Your task to perform on an android device: What's the time in San Francisco? Image 0: 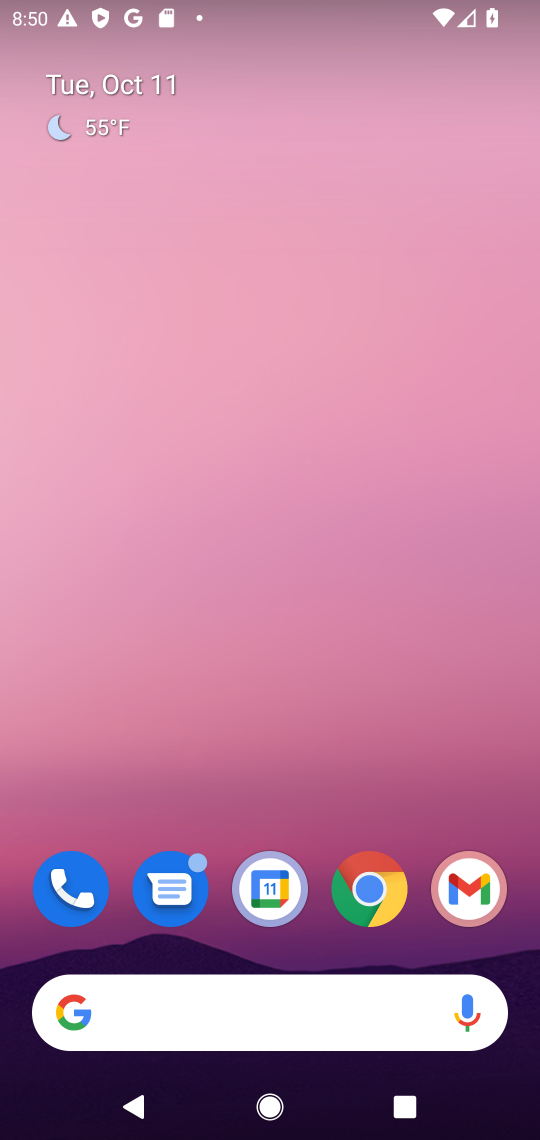
Step 0: click (274, 1000)
Your task to perform on an android device: What's the time in San Francisco? Image 1: 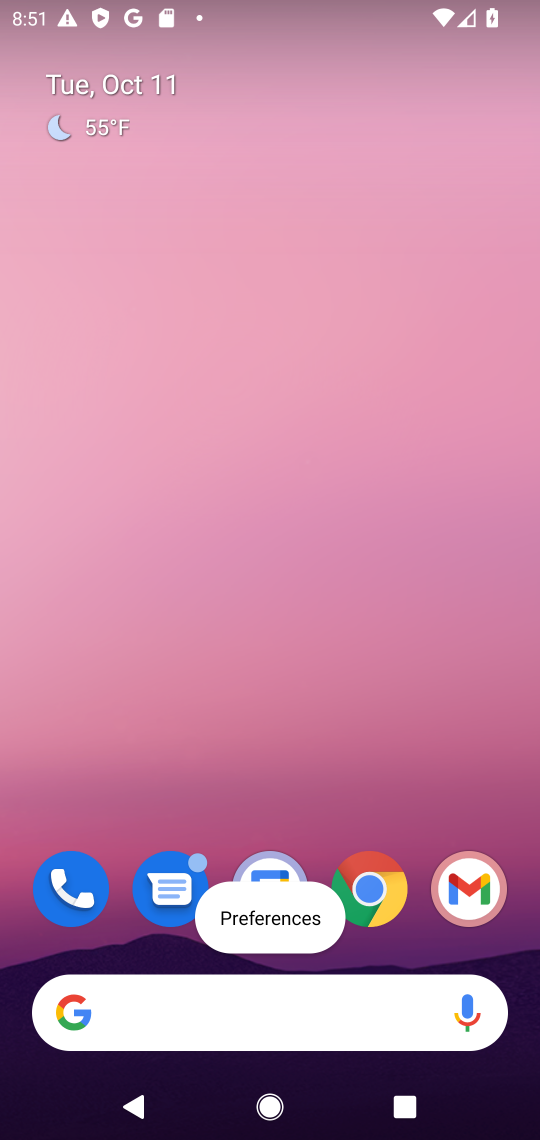
Step 1: click (231, 986)
Your task to perform on an android device: What's the time in San Francisco? Image 2: 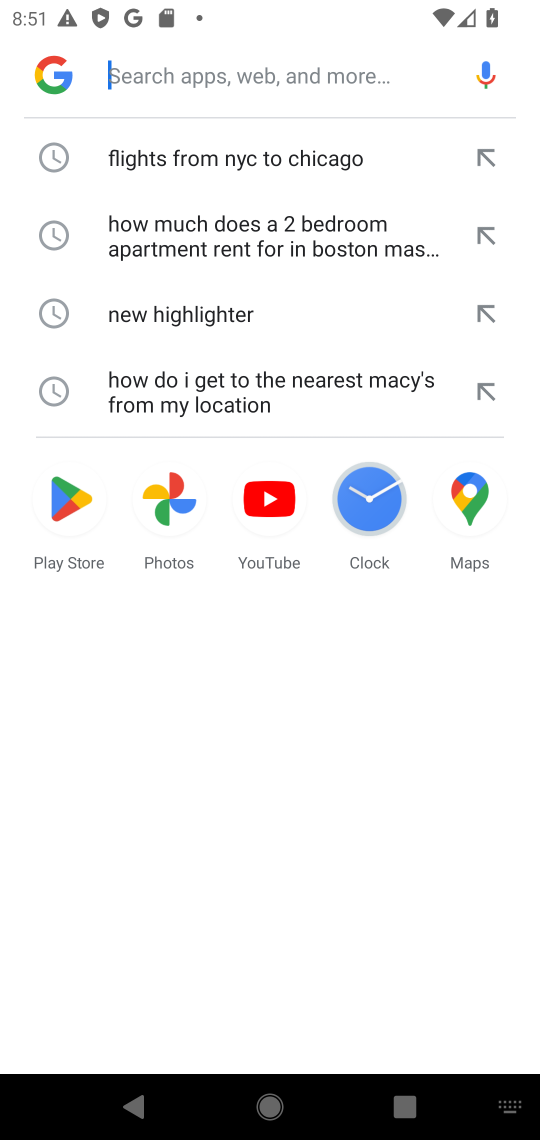
Step 2: click (196, 54)
Your task to perform on an android device: What's the time in San Francisco? Image 3: 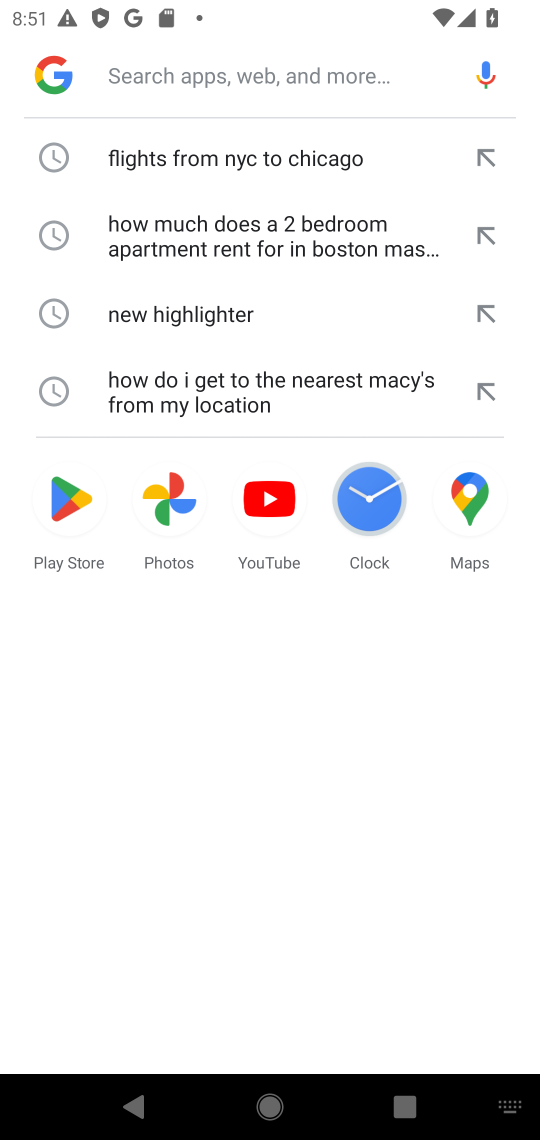
Step 3: type "What's the time in San Francisco?"
Your task to perform on an android device: What's the time in San Francisco? Image 4: 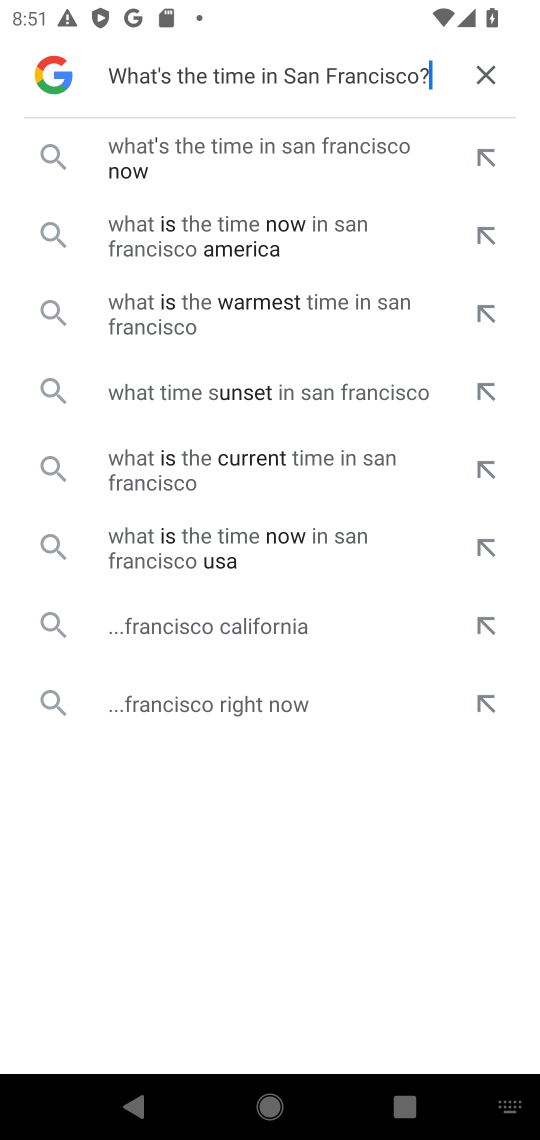
Step 4: click (219, 168)
Your task to perform on an android device: What's the time in San Francisco? Image 5: 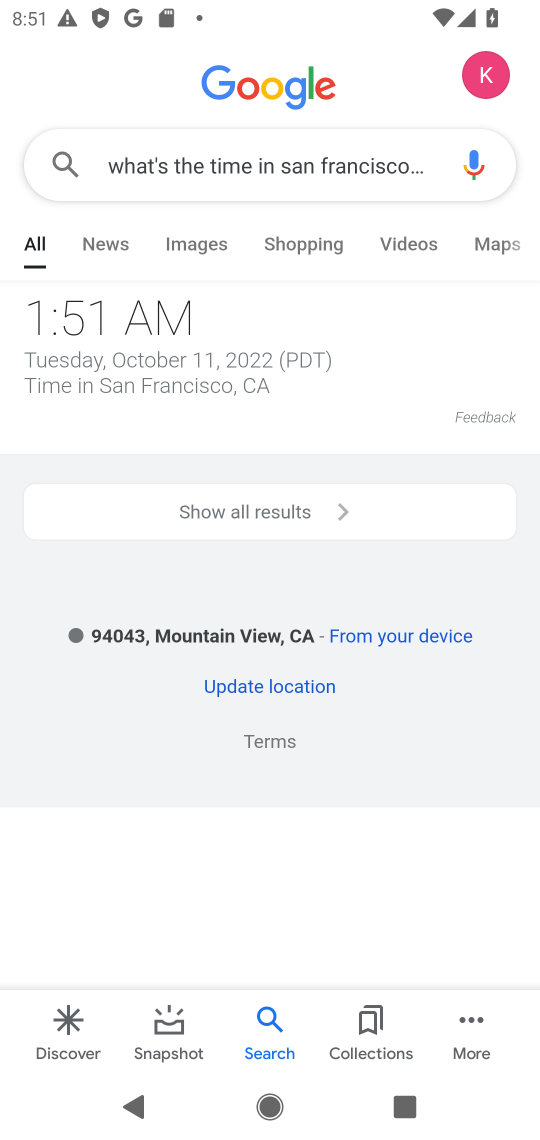
Step 5: task complete